Your task to perform on an android device: What's a good restaurant in Sacramento? Image 0: 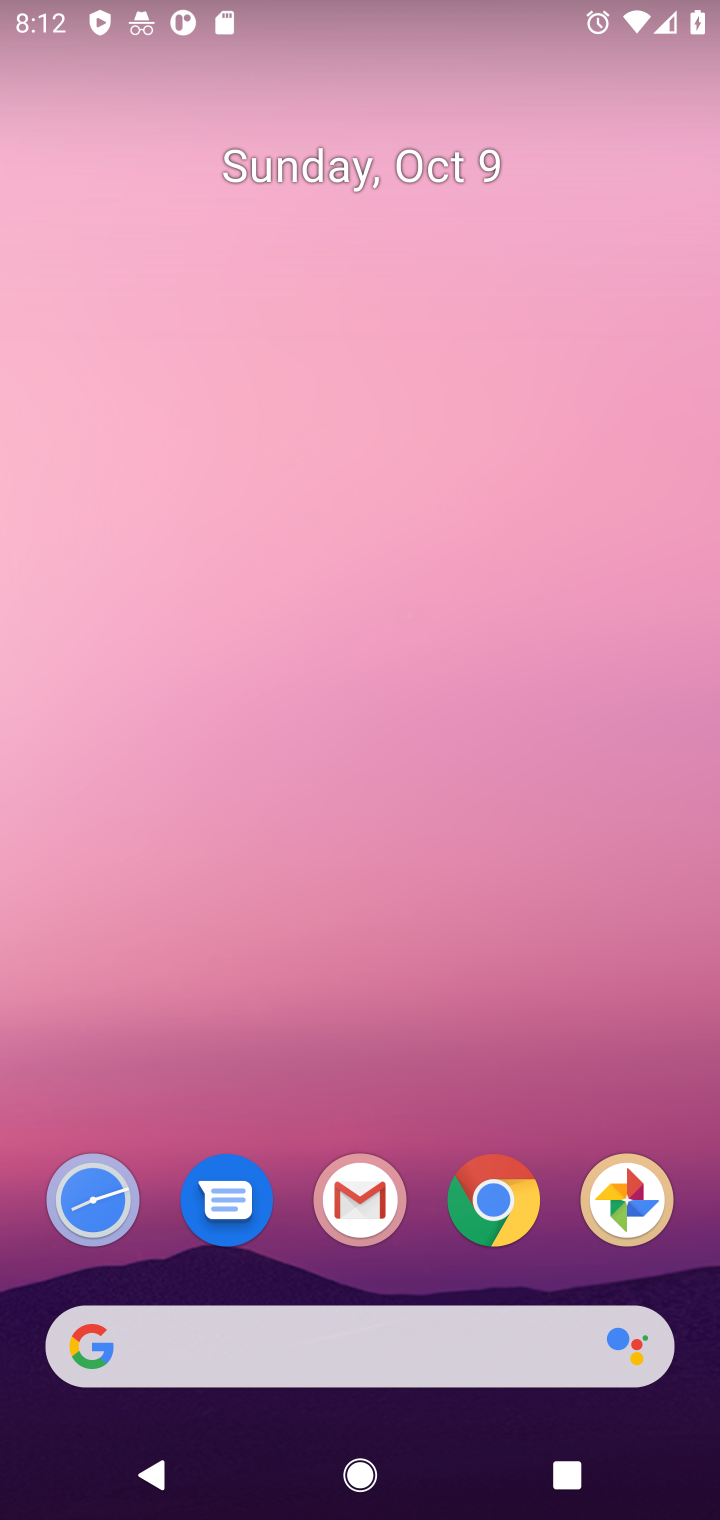
Step 0: click (530, 1176)
Your task to perform on an android device: What's a good restaurant in Sacramento? Image 1: 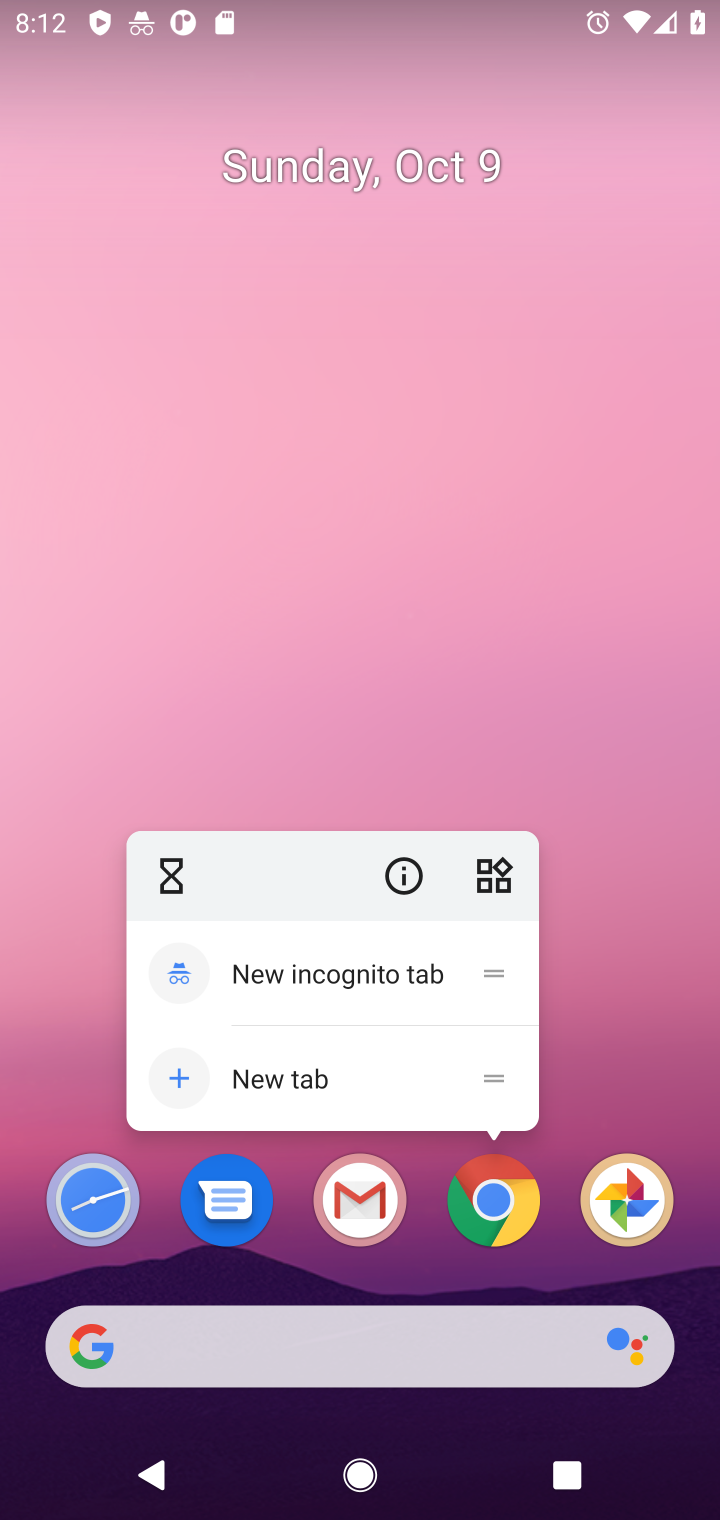
Step 1: click (503, 1201)
Your task to perform on an android device: What's a good restaurant in Sacramento? Image 2: 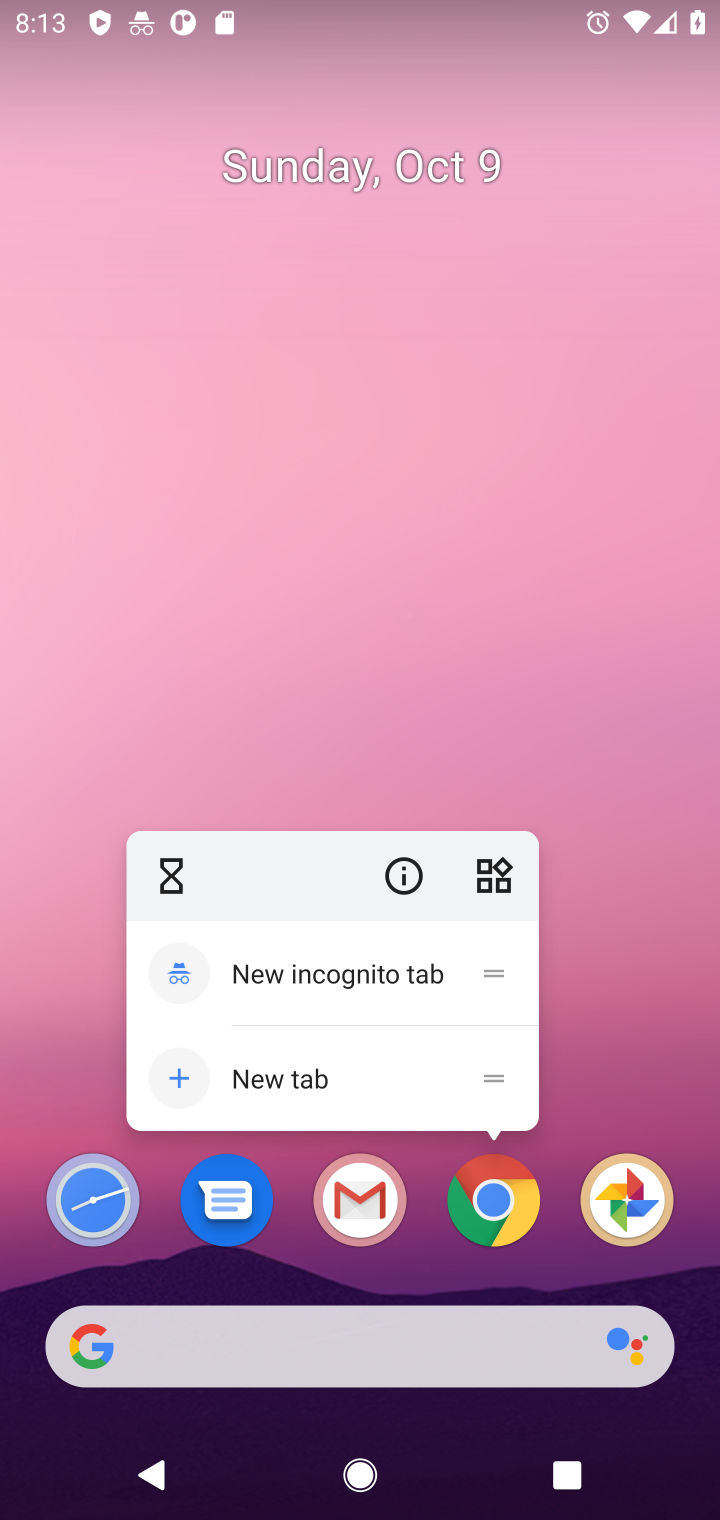
Step 2: click (502, 1228)
Your task to perform on an android device: What's a good restaurant in Sacramento? Image 3: 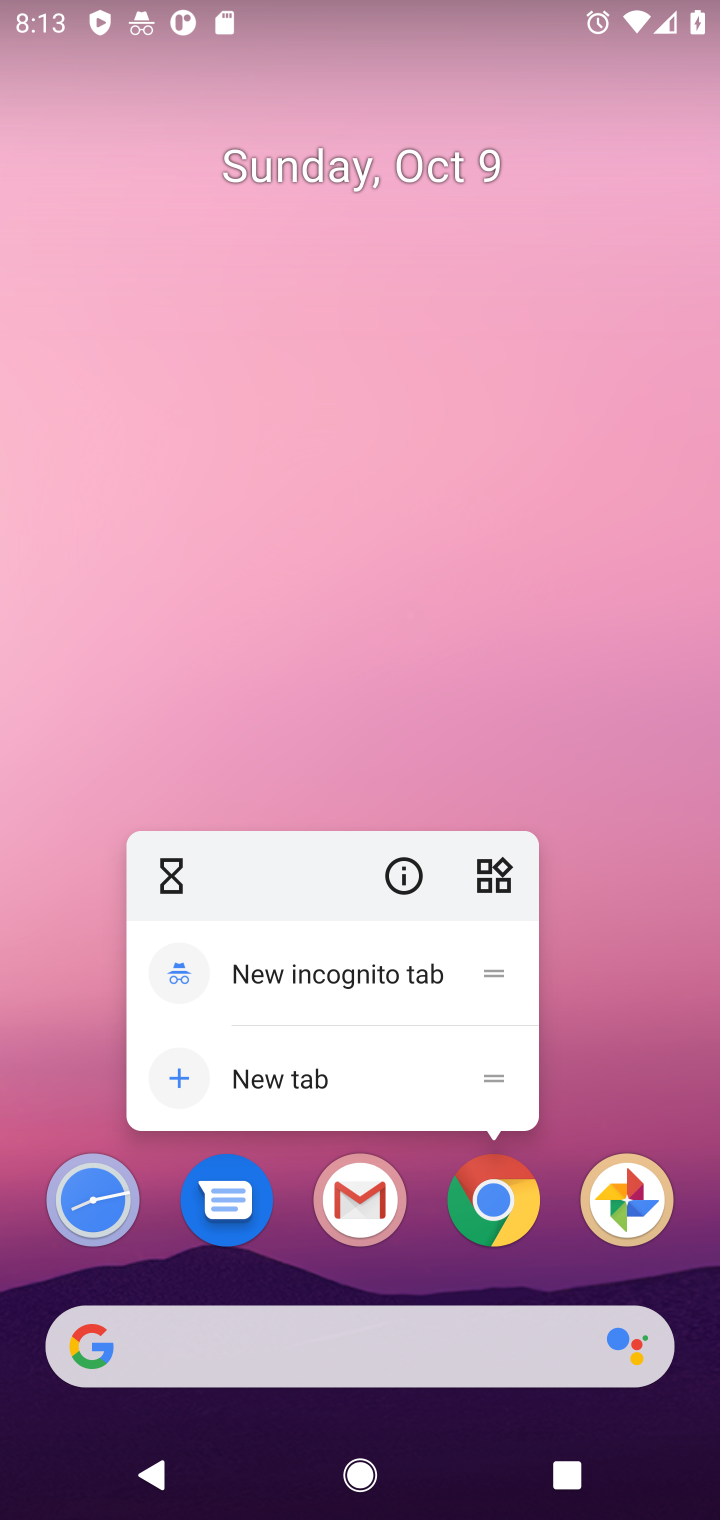
Step 3: click (511, 1221)
Your task to perform on an android device: What's a good restaurant in Sacramento? Image 4: 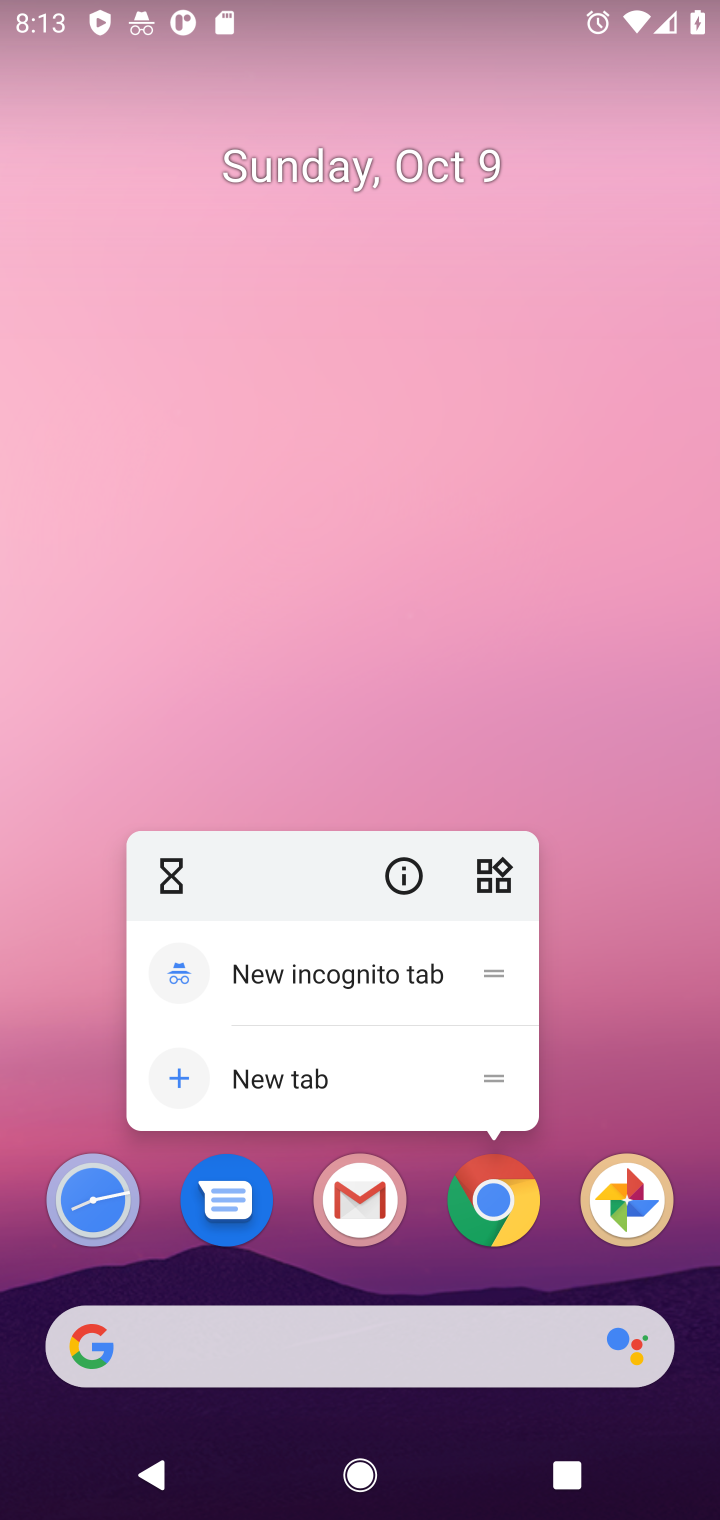
Step 4: click (504, 1229)
Your task to perform on an android device: What's a good restaurant in Sacramento? Image 5: 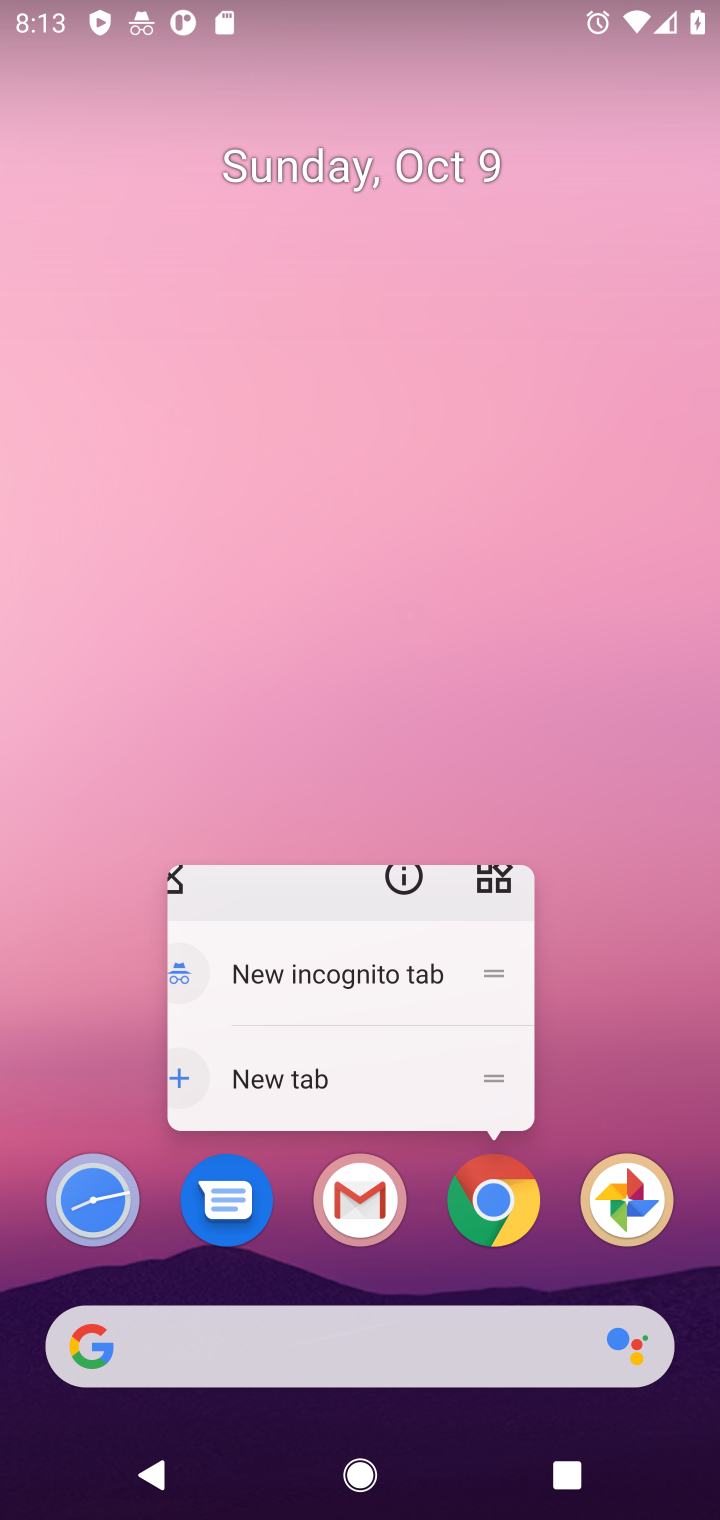
Step 5: click (638, 712)
Your task to perform on an android device: What's a good restaurant in Sacramento? Image 6: 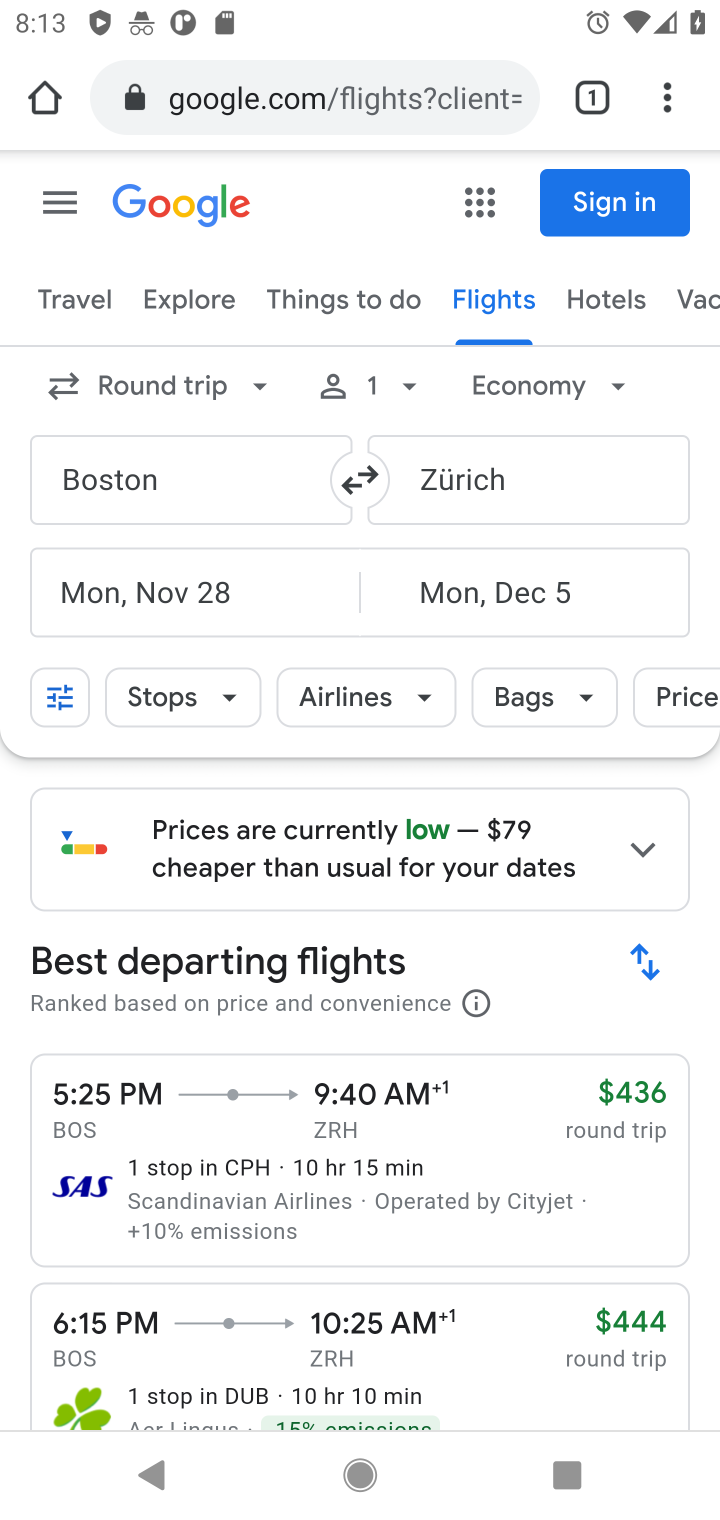
Step 6: click (381, 122)
Your task to perform on an android device: What's a good restaurant in Sacramento? Image 7: 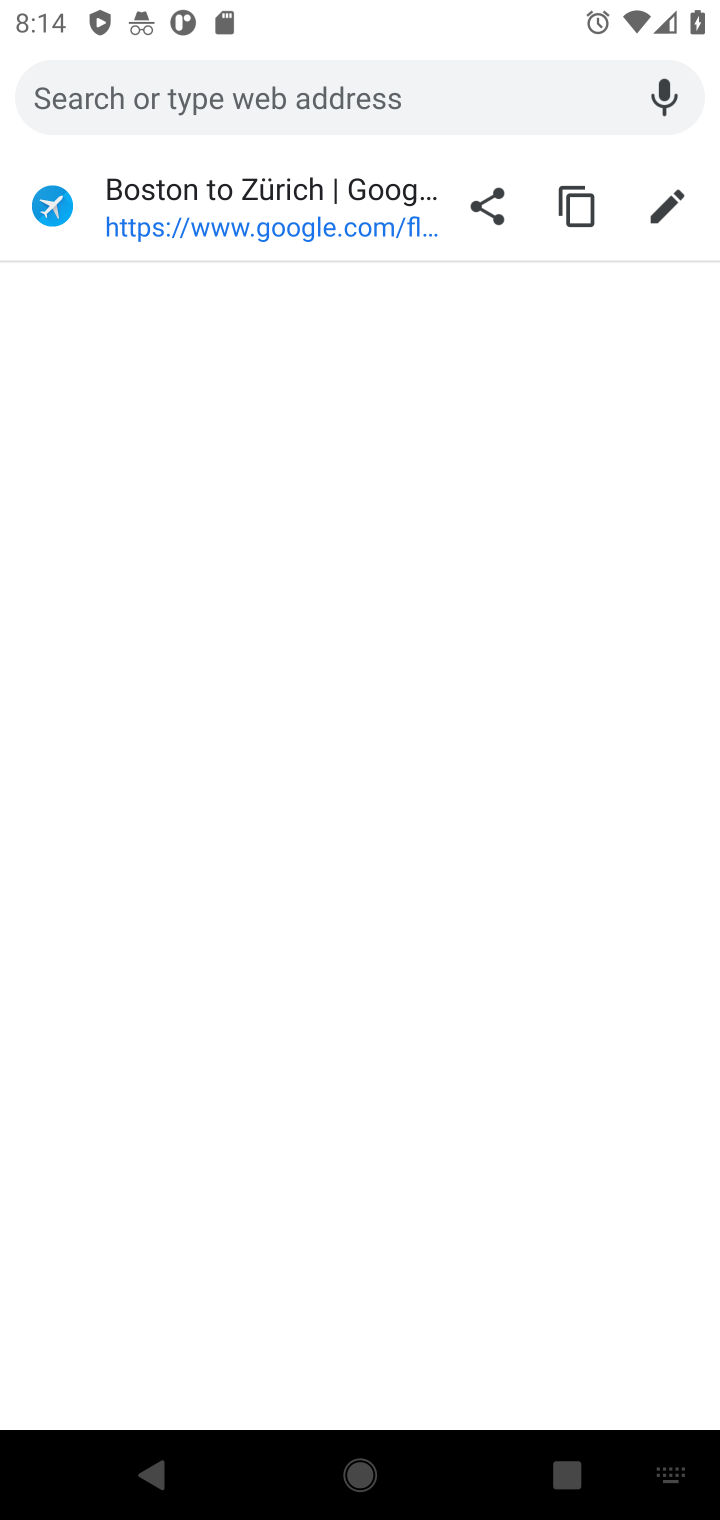
Step 7: type "restaurant in Sacramento"
Your task to perform on an android device: What's a good restaurant in Sacramento? Image 8: 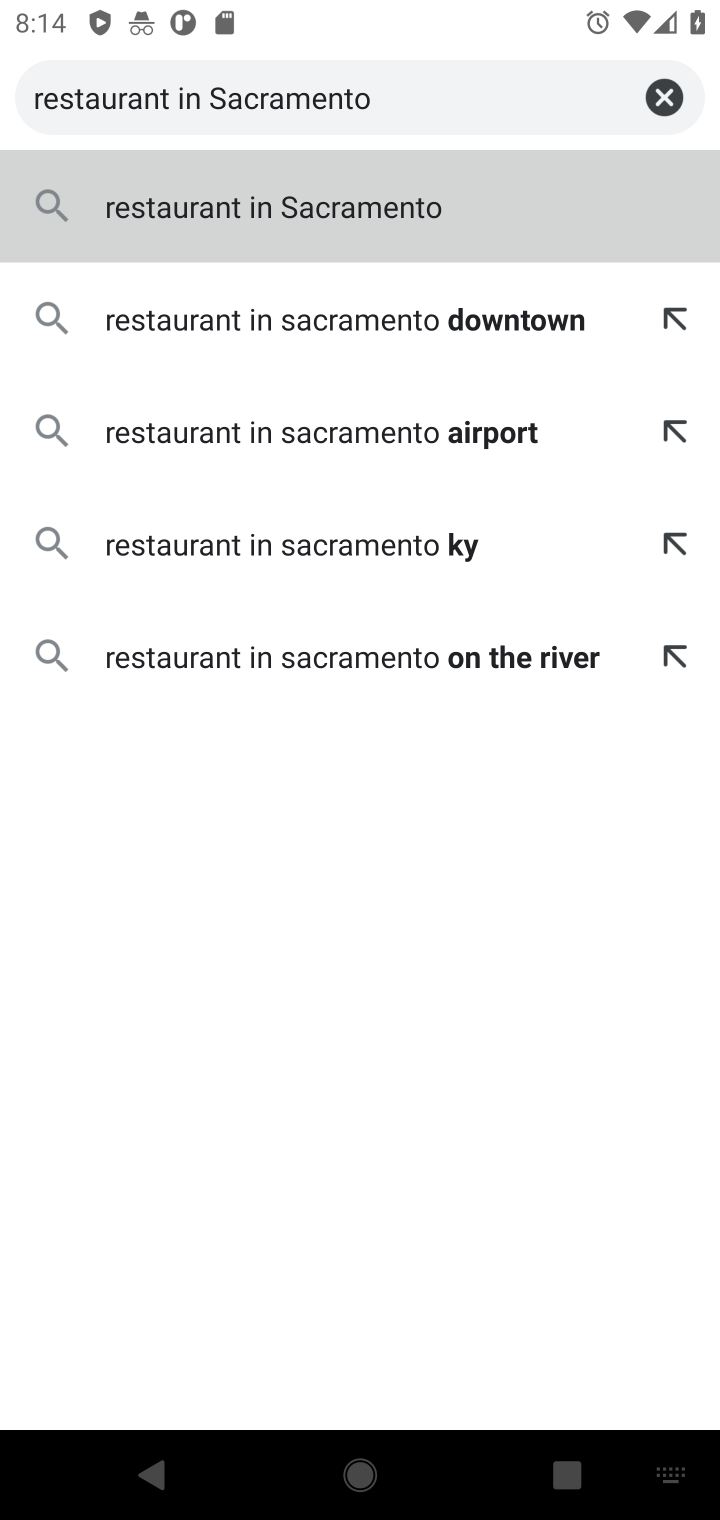
Step 8: type ""
Your task to perform on an android device: What's a good restaurant in Sacramento? Image 9: 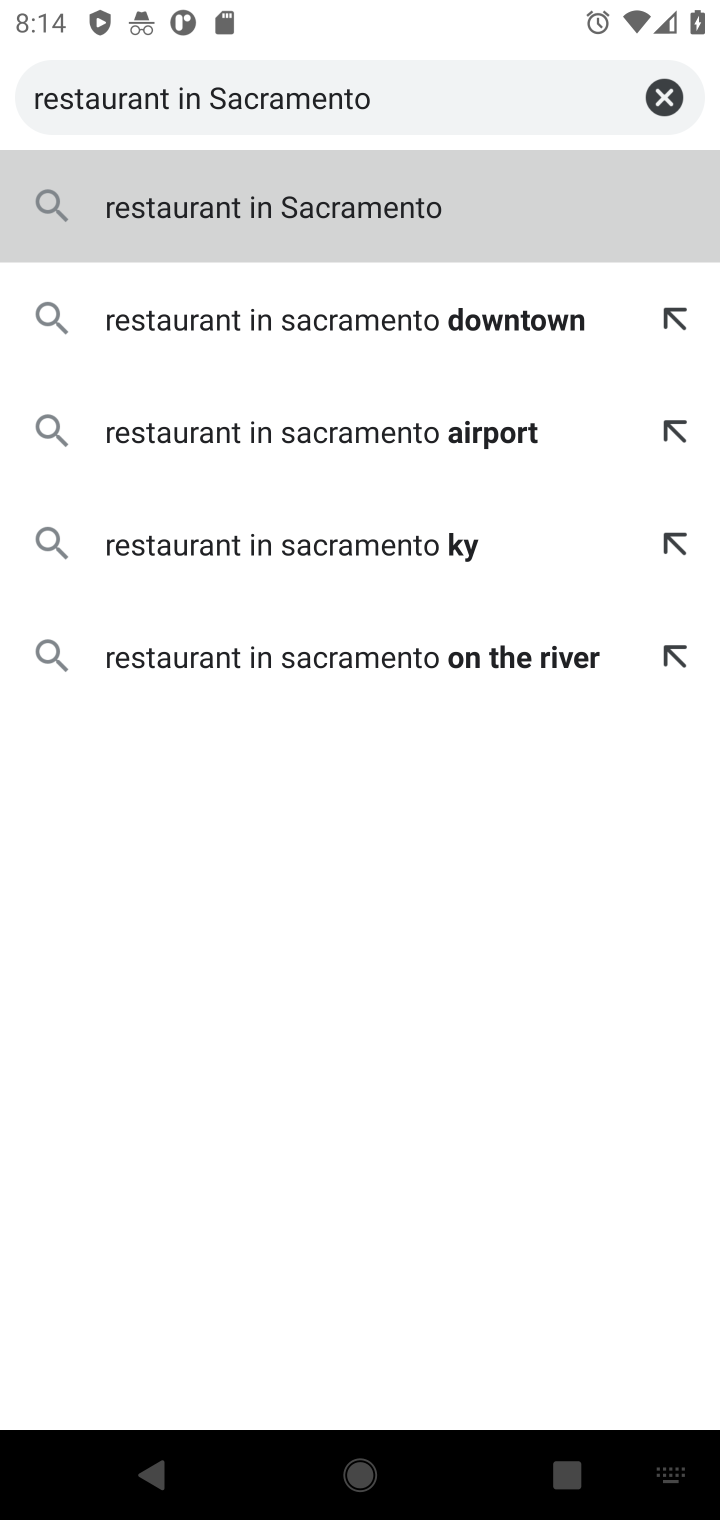
Step 9: click (454, 226)
Your task to perform on an android device: What's a good restaurant in Sacramento? Image 10: 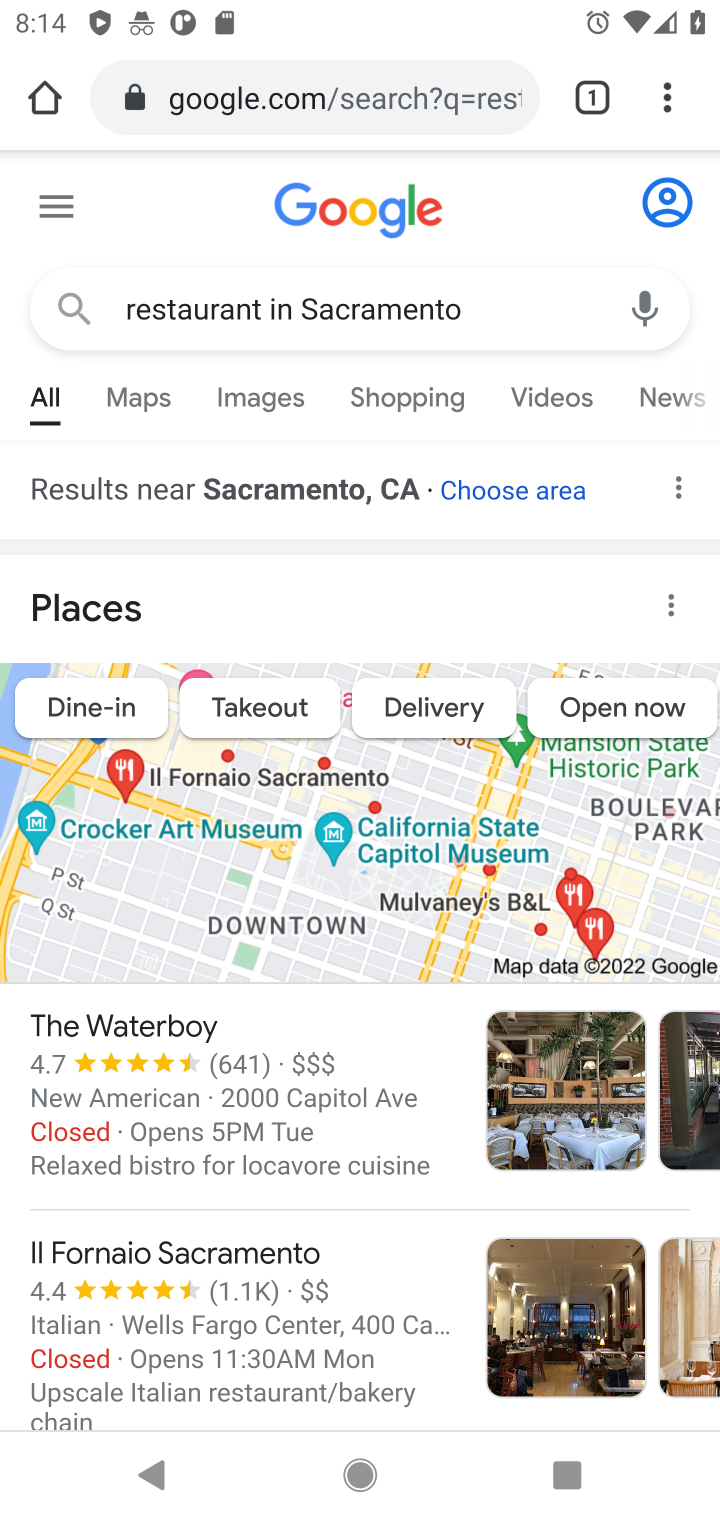
Step 10: drag from (283, 922) to (342, 544)
Your task to perform on an android device: What's a good restaurant in Sacramento? Image 11: 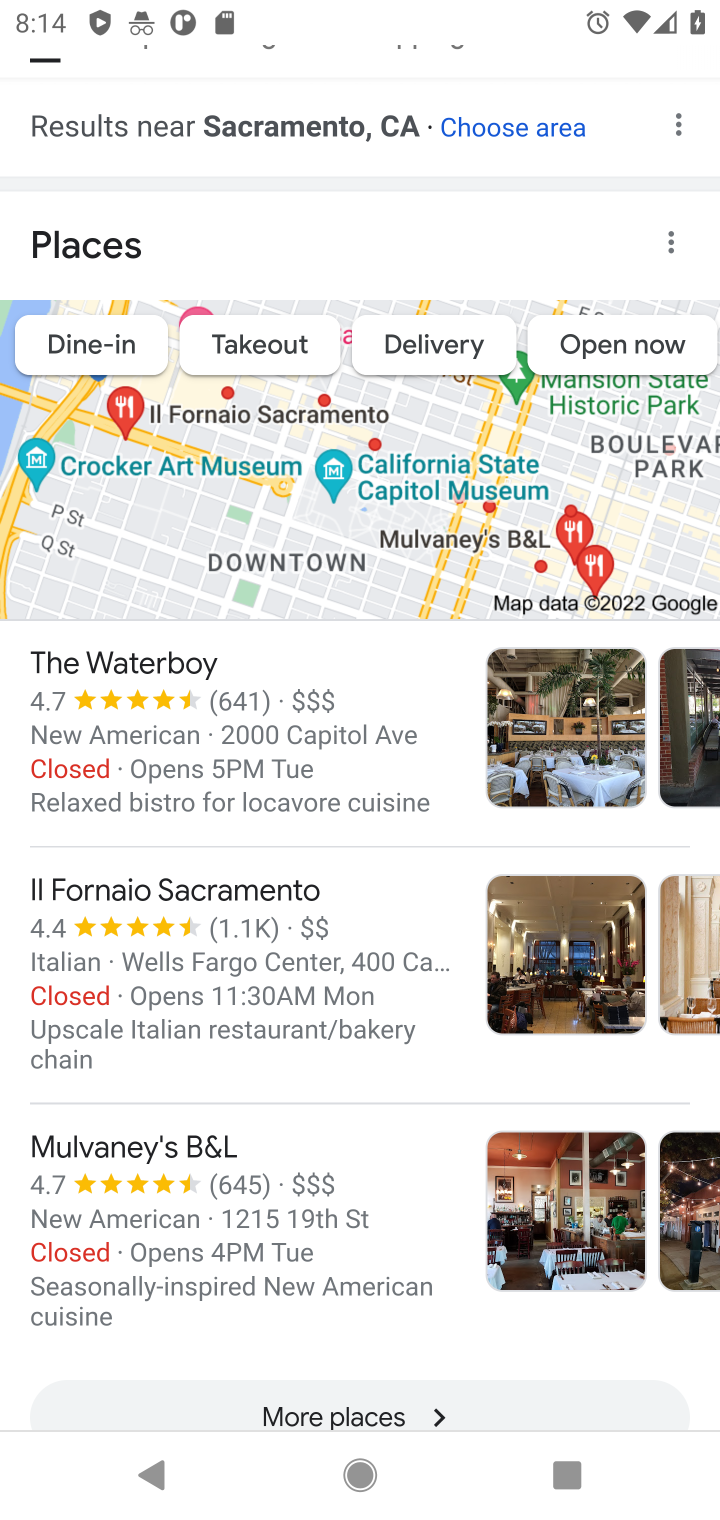
Step 11: click (398, 1403)
Your task to perform on an android device: What's a good restaurant in Sacramento? Image 12: 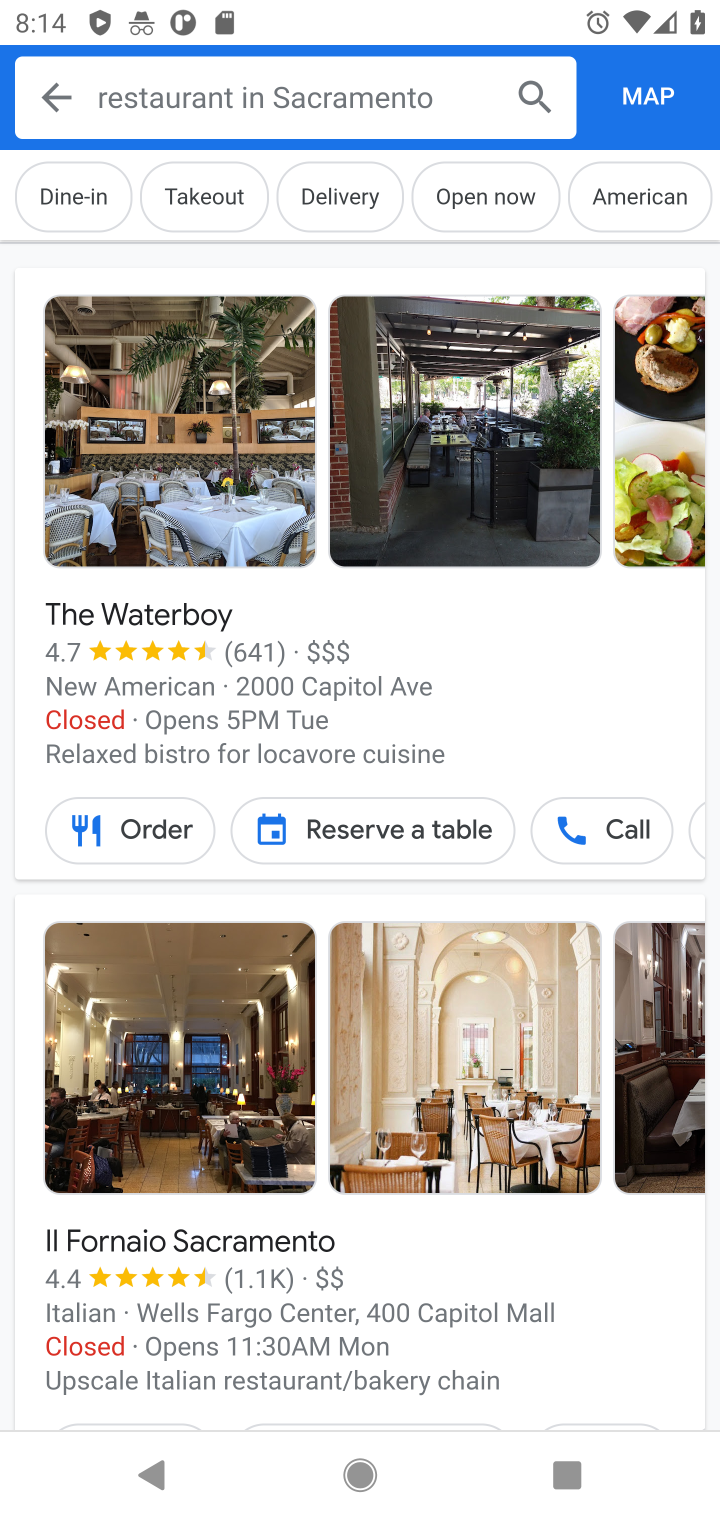
Step 12: task complete